Your task to perform on an android device: Go to accessibility settings Image 0: 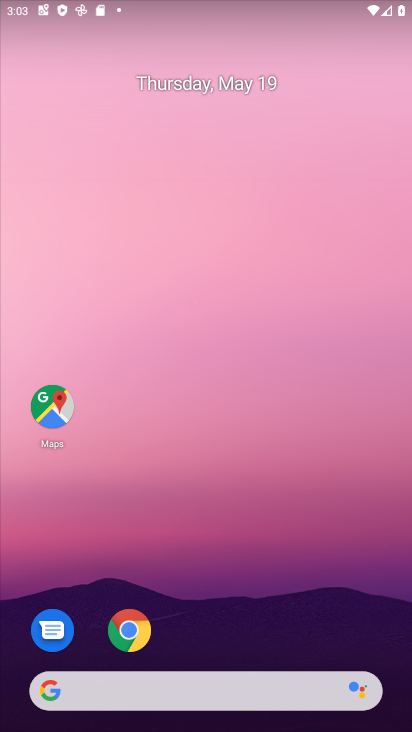
Step 0: drag from (388, 630) to (318, 78)
Your task to perform on an android device: Go to accessibility settings Image 1: 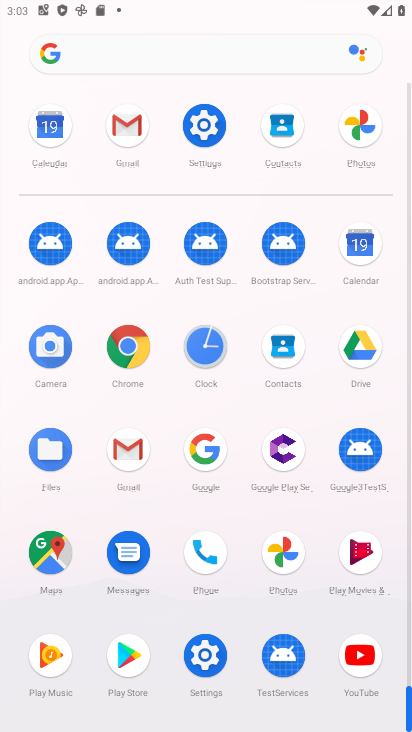
Step 1: click (203, 654)
Your task to perform on an android device: Go to accessibility settings Image 2: 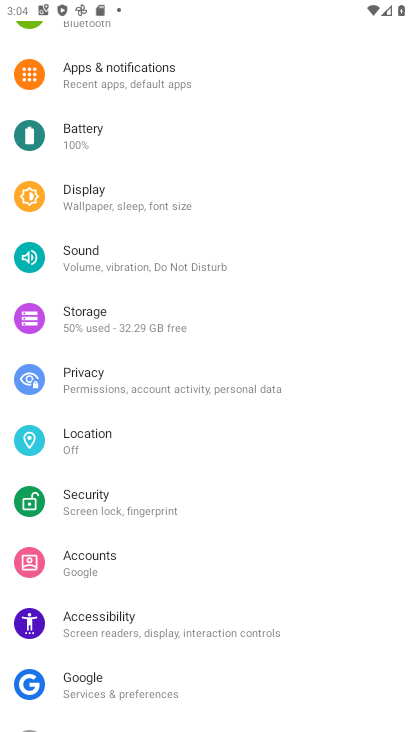
Step 2: click (123, 630)
Your task to perform on an android device: Go to accessibility settings Image 3: 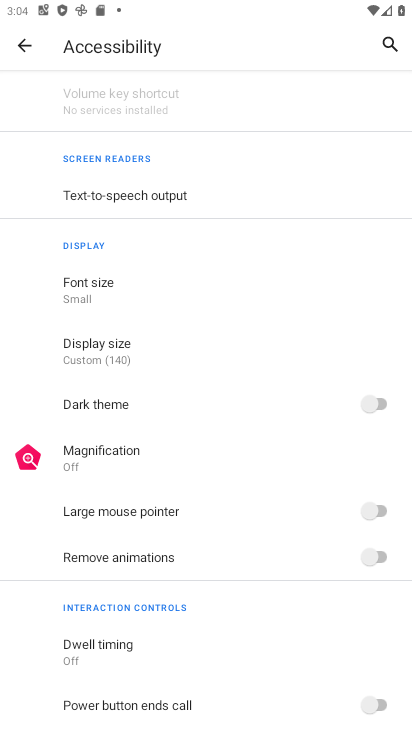
Step 3: task complete